Your task to perform on an android device: check the backup settings in the google photos Image 0: 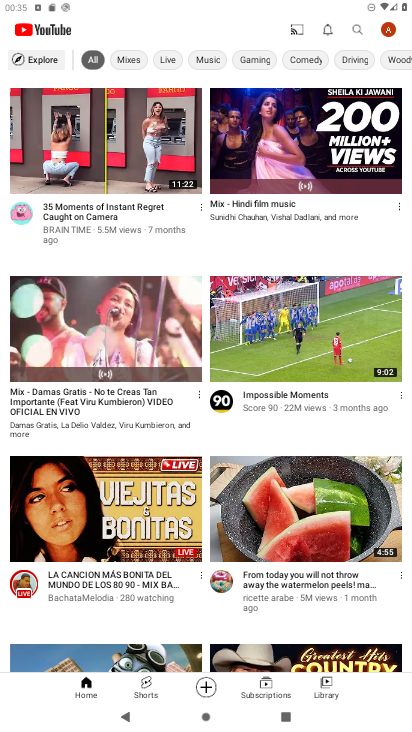
Step 0: press home button
Your task to perform on an android device: check the backup settings in the google photos Image 1: 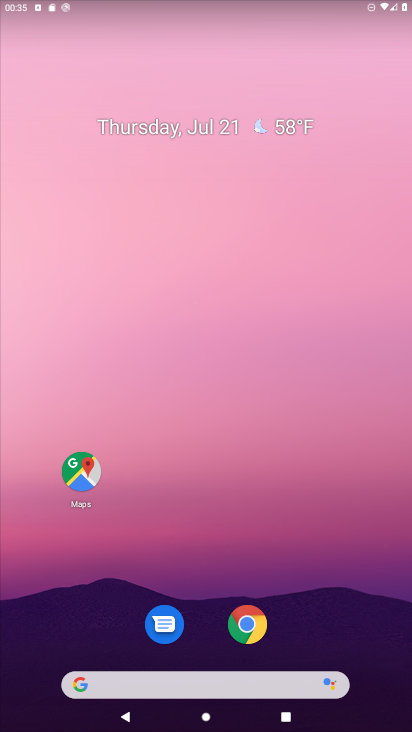
Step 1: drag from (211, 581) to (213, 127)
Your task to perform on an android device: check the backup settings in the google photos Image 2: 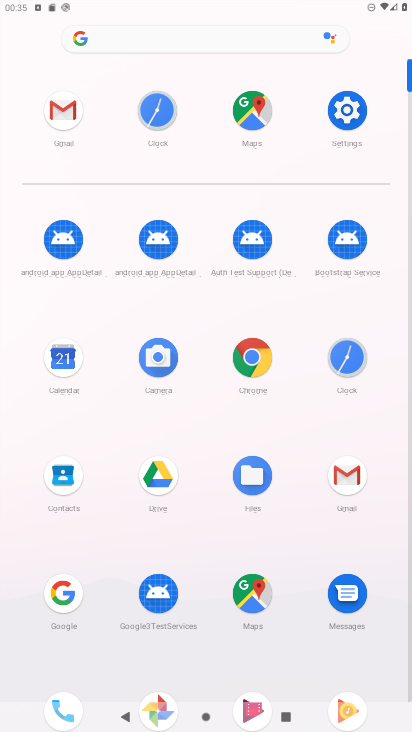
Step 2: drag from (276, 561) to (281, 238)
Your task to perform on an android device: check the backup settings in the google photos Image 3: 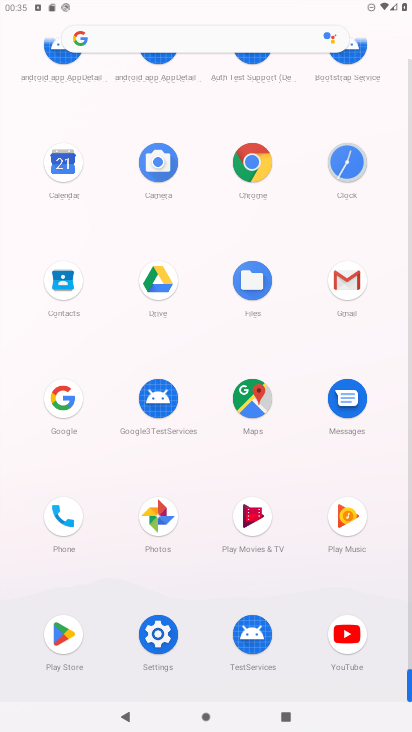
Step 3: click (175, 498)
Your task to perform on an android device: check the backup settings in the google photos Image 4: 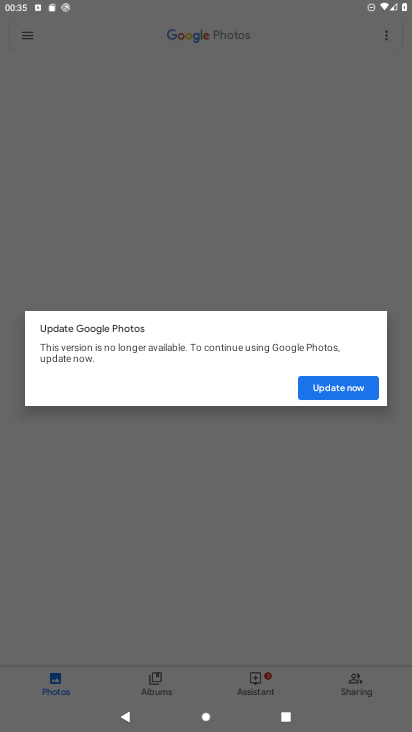
Step 4: click (334, 375)
Your task to perform on an android device: check the backup settings in the google photos Image 5: 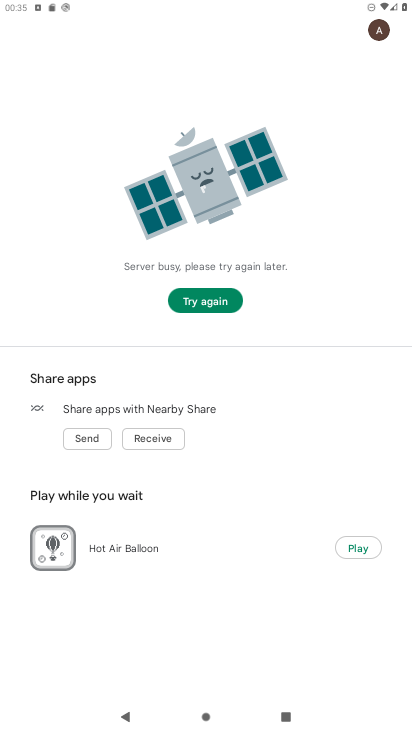
Step 5: click (305, 141)
Your task to perform on an android device: check the backup settings in the google photos Image 6: 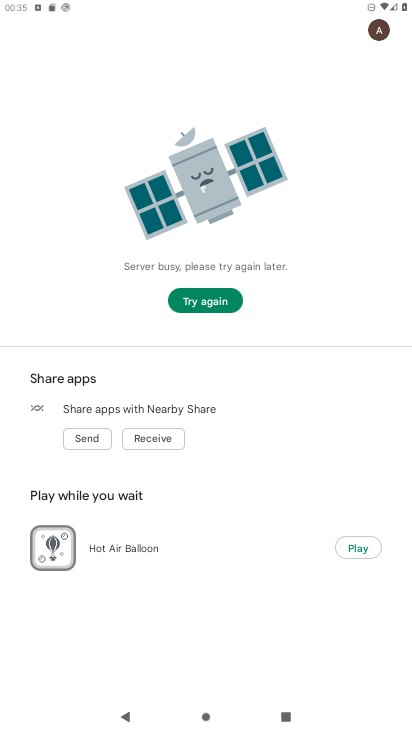
Step 6: click (234, 290)
Your task to perform on an android device: check the backup settings in the google photos Image 7: 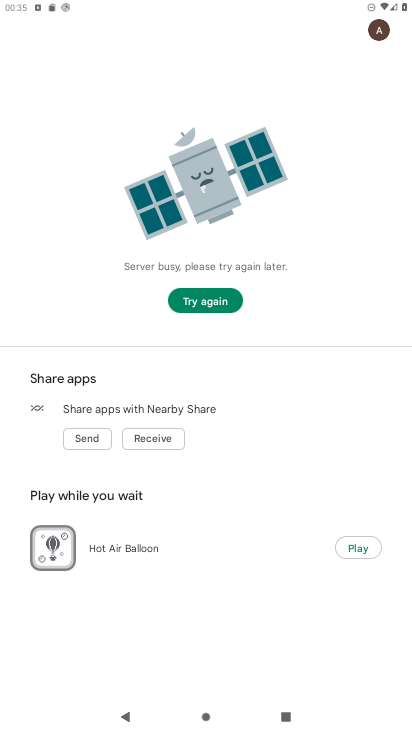
Step 7: task complete